Your task to perform on an android device: Open the calendar and show me this week's events? Image 0: 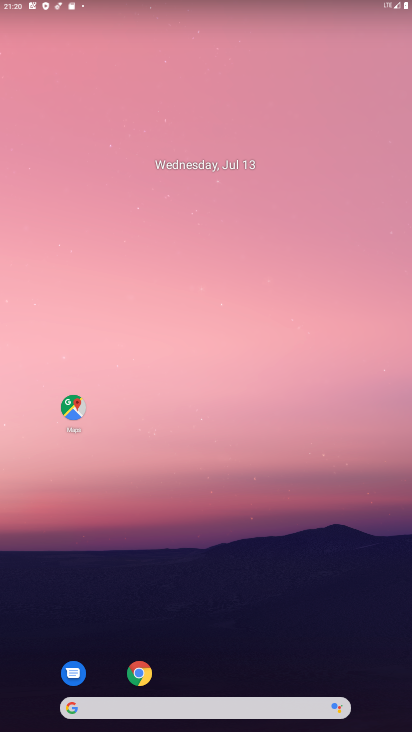
Step 0: drag from (195, 658) to (217, 414)
Your task to perform on an android device: Open the calendar and show me this week's events? Image 1: 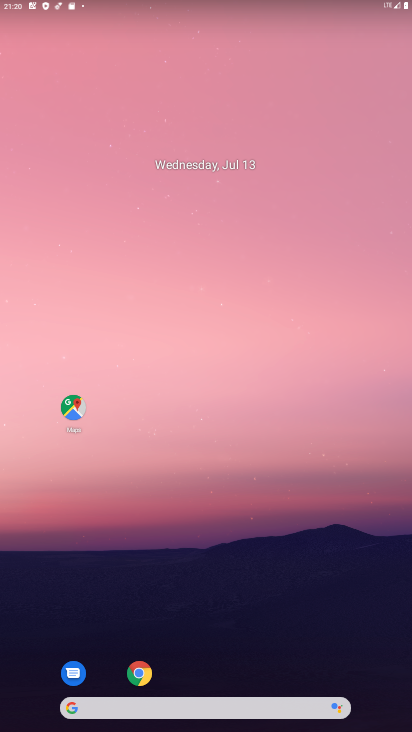
Step 1: drag from (147, 686) to (225, 104)
Your task to perform on an android device: Open the calendar and show me this week's events? Image 2: 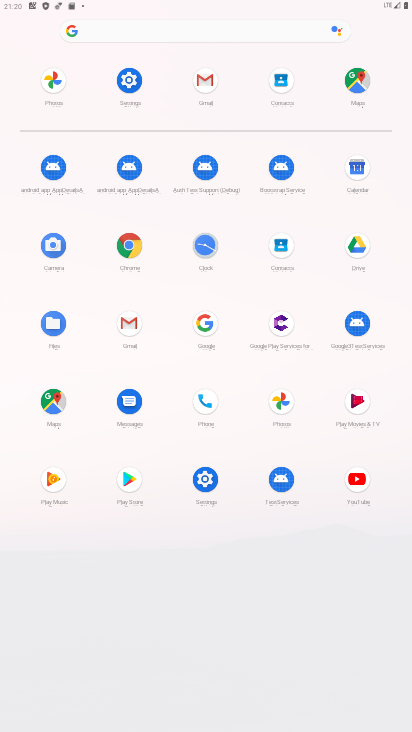
Step 2: click (350, 174)
Your task to perform on an android device: Open the calendar and show me this week's events? Image 3: 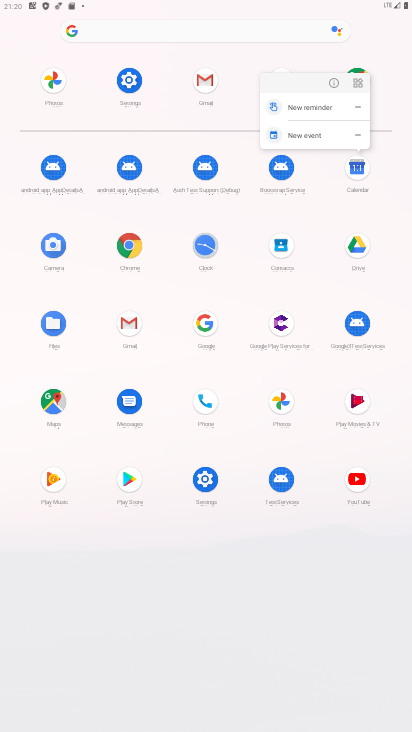
Step 3: click (335, 79)
Your task to perform on an android device: Open the calendar and show me this week's events? Image 4: 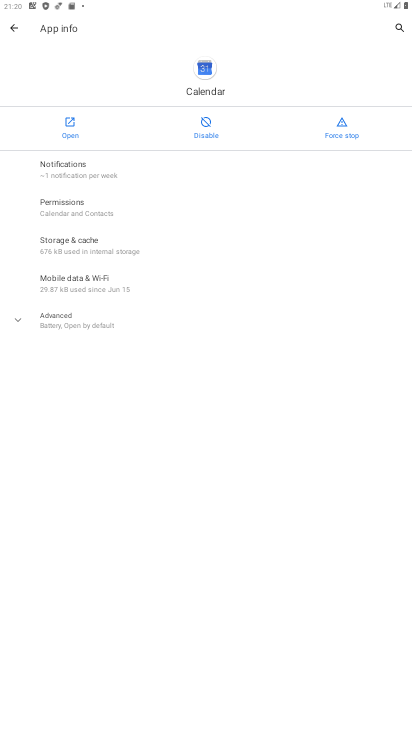
Step 4: click (67, 117)
Your task to perform on an android device: Open the calendar and show me this week's events? Image 5: 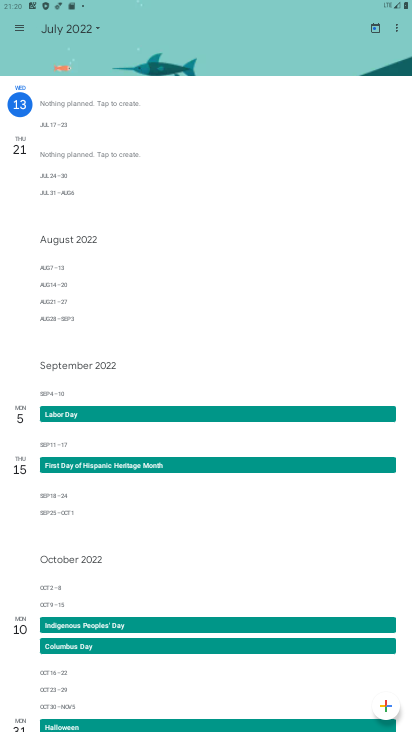
Step 5: drag from (158, 559) to (166, 222)
Your task to perform on an android device: Open the calendar and show me this week's events? Image 6: 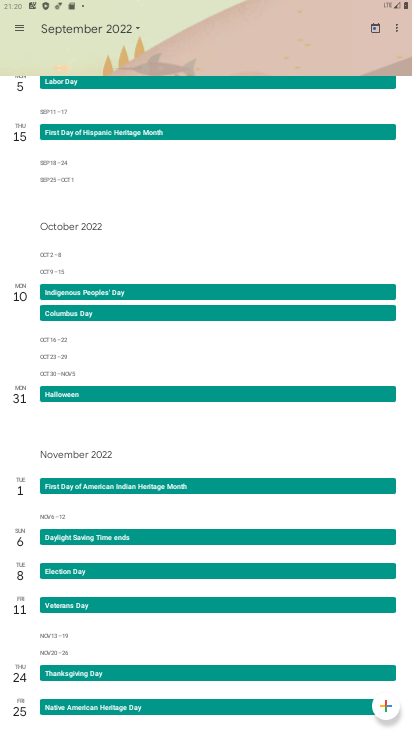
Step 6: drag from (182, 177) to (224, 611)
Your task to perform on an android device: Open the calendar and show me this week's events? Image 7: 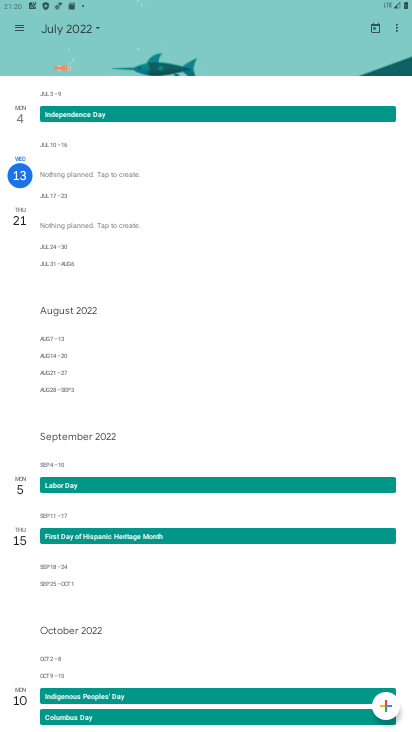
Step 7: click (64, 32)
Your task to perform on an android device: Open the calendar and show me this week's events? Image 8: 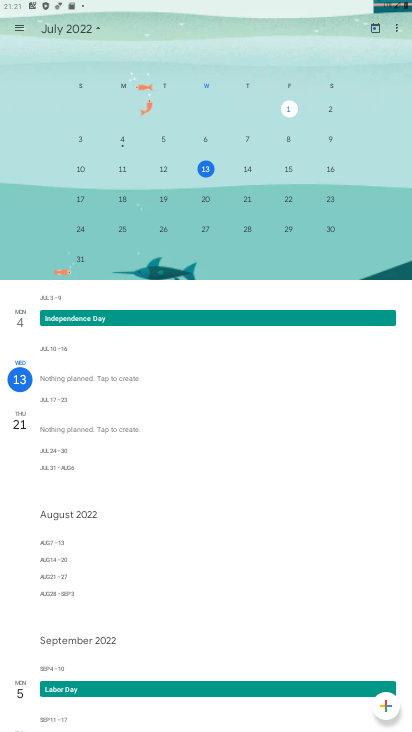
Step 8: drag from (146, 600) to (182, 288)
Your task to perform on an android device: Open the calendar and show me this week's events? Image 9: 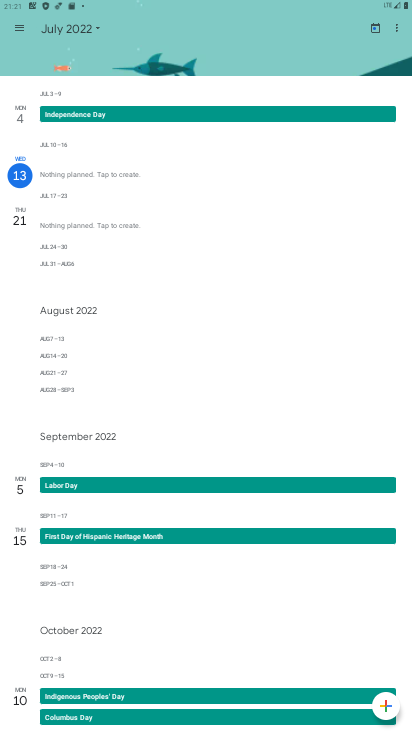
Step 9: drag from (213, 352) to (222, 603)
Your task to perform on an android device: Open the calendar and show me this week's events? Image 10: 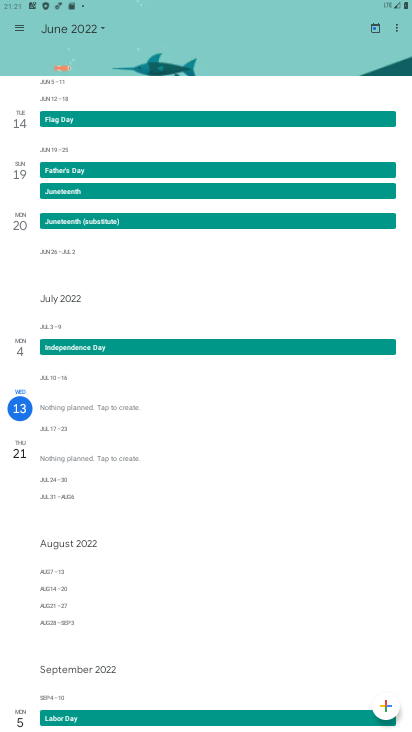
Step 10: click (82, 31)
Your task to perform on an android device: Open the calendar and show me this week's events? Image 11: 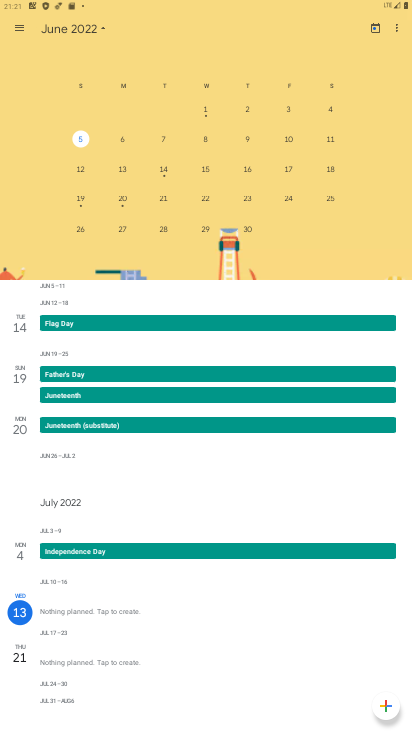
Step 11: drag from (334, 159) to (39, 232)
Your task to perform on an android device: Open the calendar and show me this week's events? Image 12: 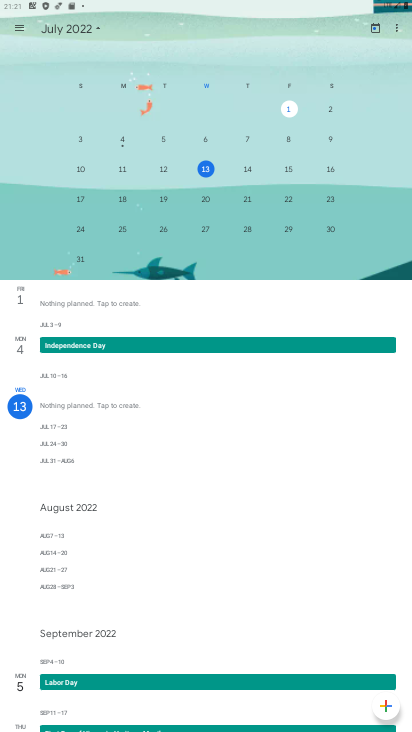
Step 12: click (329, 165)
Your task to perform on an android device: Open the calendar and show me this week's events? Image 13: 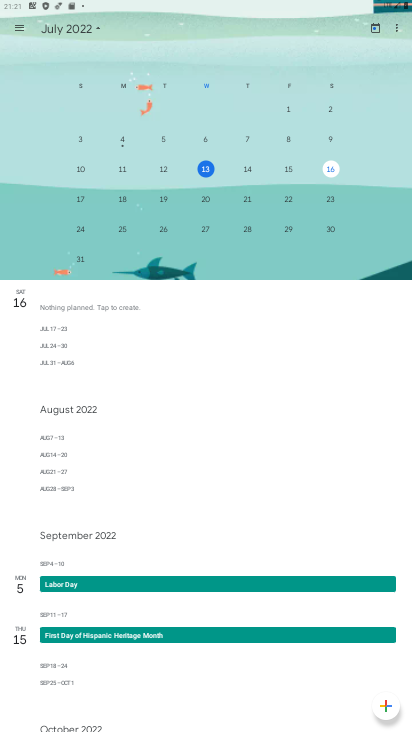
Step 13: task complete